Your task to perform on an android device: toggle show notifications on the lock screen Image 0: 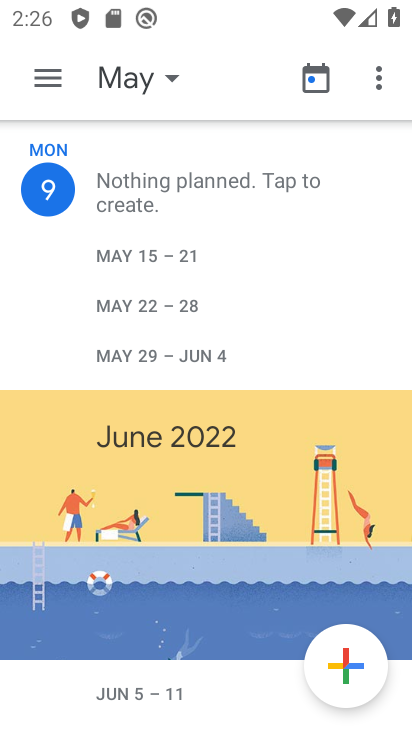
Step 0: press back button
Your task to perform on an android device: toggle show notifications on the lock screen Image 1: 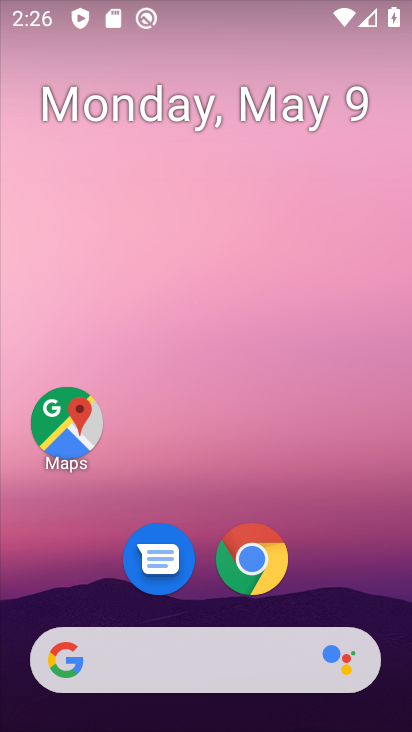
Step 1: drag from (338, 571) to (269, 19)
Your task to perform on an android device: toggle show notifications on the lock screen Image 2: 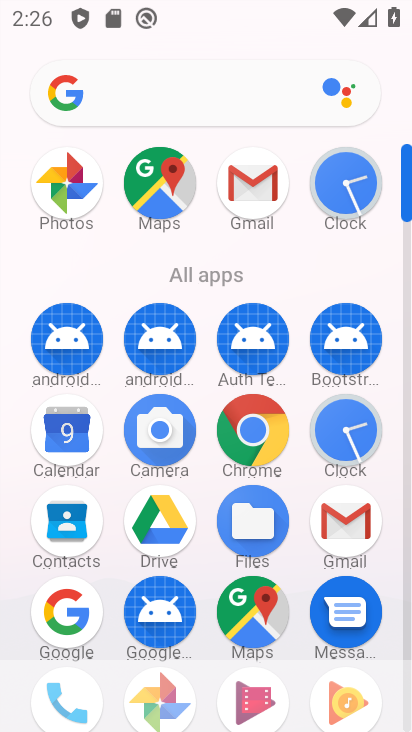
Step 2: drag from (206, 493) to (224, 266)
Your task to perform on an android device: toggle show notifications on the lock screen Image 3: 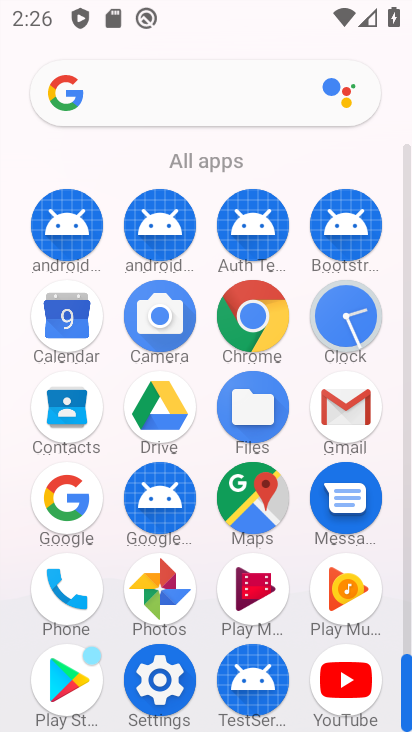
Step 3: click (159, 681)
Your task to perform on an android device: toggle show notifications on the lock screen Image 4: 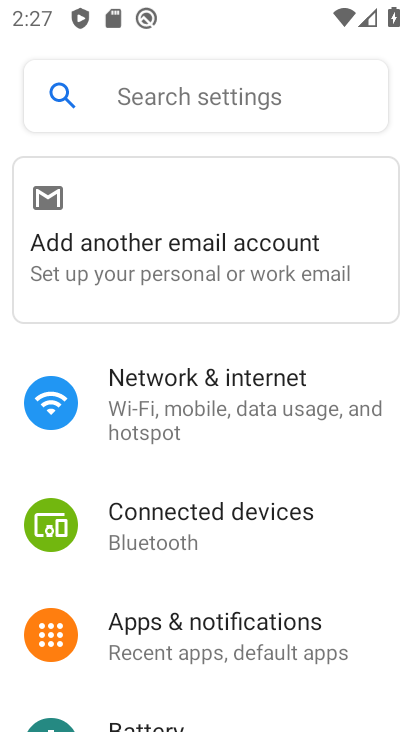
Step 4: drag from (195, 564) to (212, 469)
Your task to perform on an android device: toggle show notifications on the lock screen Image 5: 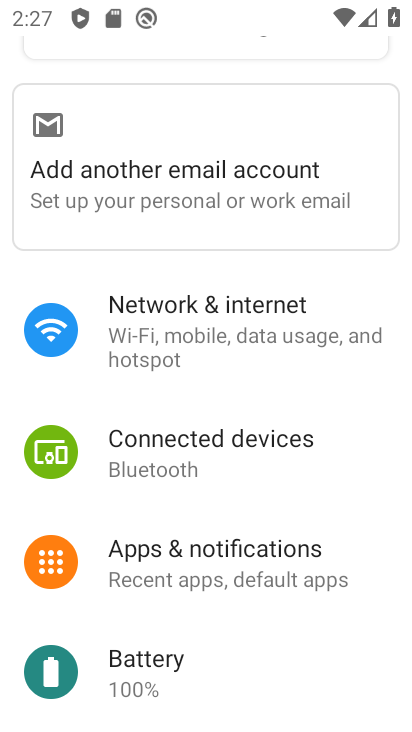
Step 5: click (220, 550)
Your task to perform on an android device: toggle show notifications on the lock screen Image 6: 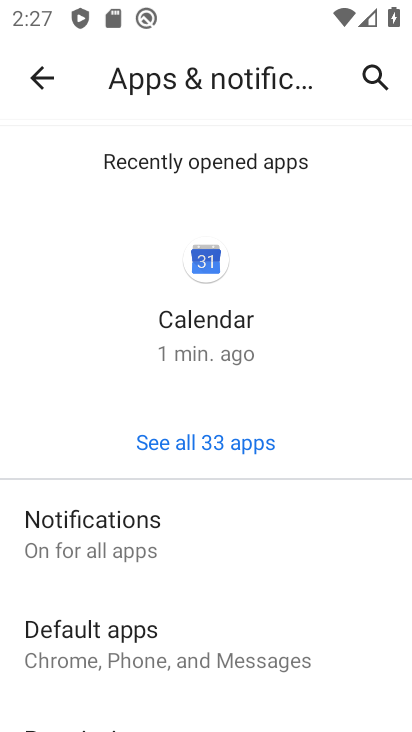
Step 6: click (151, 514)
Your task to perform on an android device: toggle show notifications on the lock screen Image 7: 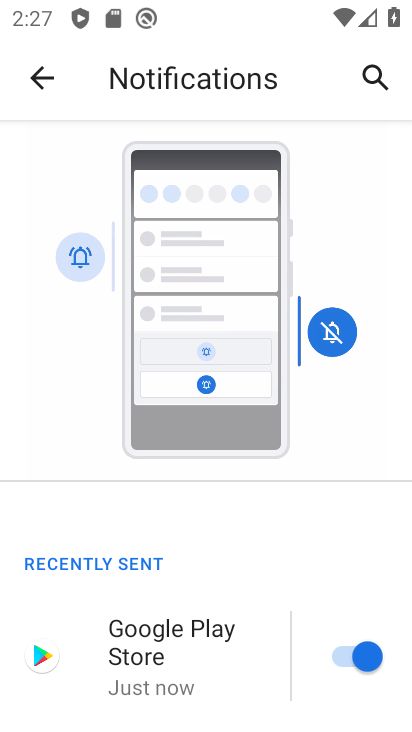
Step 7: drag from (206, 567) to (234, 349)
Your task to perform on an android device: toggle show notifications on the lock screen Image 8: 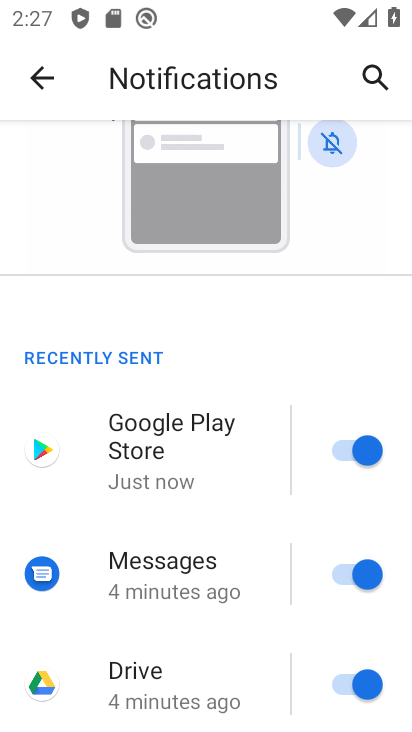
Step 8: drag from (191, 519) to (280, 353)
Your task to perform on an android device: toggle show notifications on the lock screen Image 9: 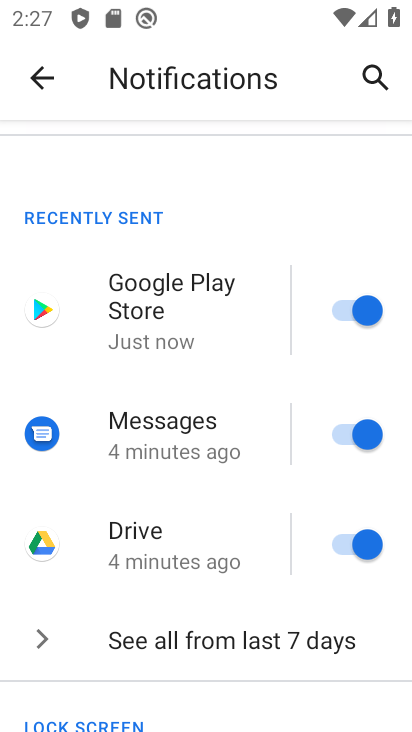
Step 9: drag from (136, 685) to (243, 472)
Your task to perform on an android device: toggle show notifications on the lock screen Image 10: 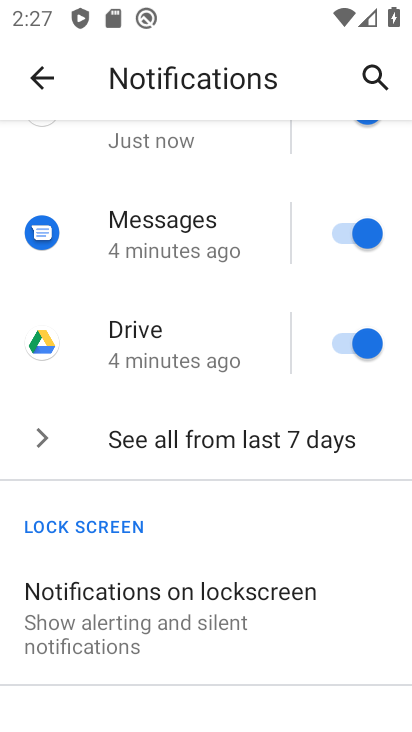
Step 10: click (183, 587)
Your task to perform on an android device: toggle show notifications on the lock screen Image 11: 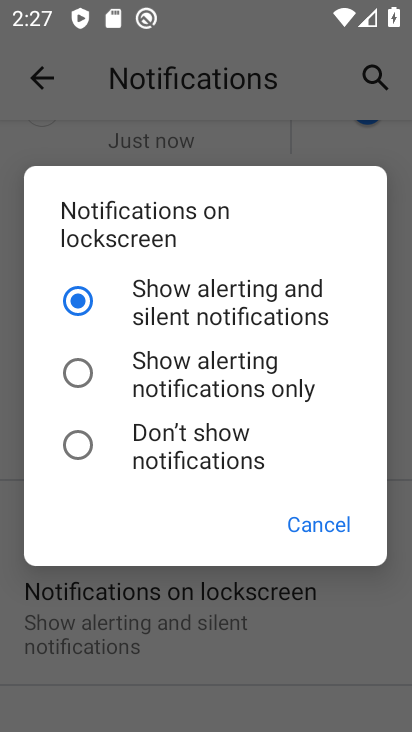
Step 11: click (70, 442)
Your task to perform on an android device: toggle show notifications on the lock screen Image 12: 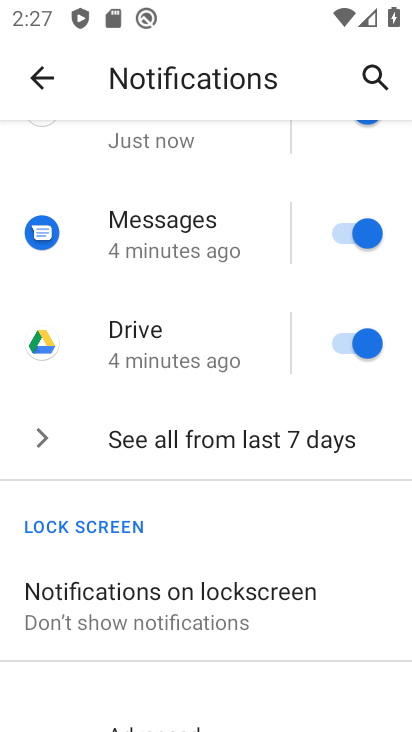
Step 12: task complete